Your task to perform on an android device: find which apps use the phone's location Image 0: 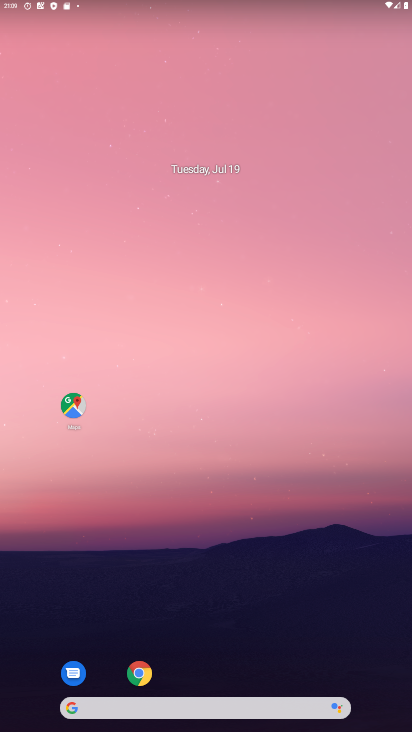
Step 0: drag from (222, 657) to (278, 209)
Your task to perform on an android device: find which apps use the phone's location Image 1: 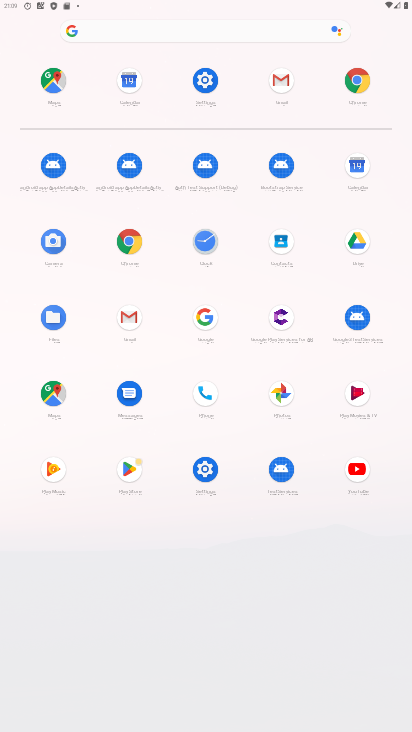
Step 1: click (210, 478)
Your task to perform on an android device: find which apps use the phone's location Image 2: 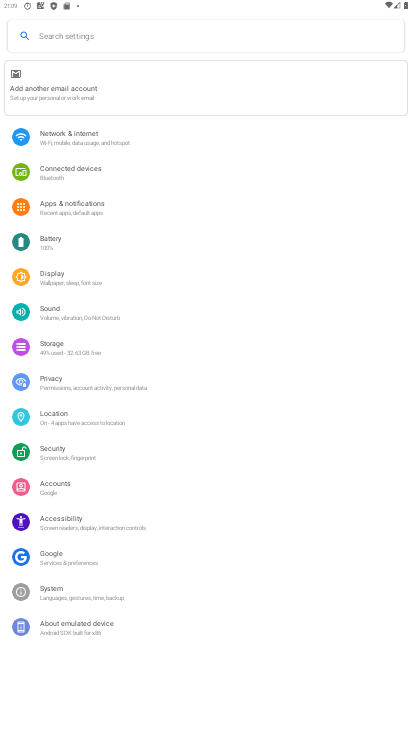
Step 2: click (81, 419)
Your task to perform on an android device: find which apps use the phone's location Image 3: 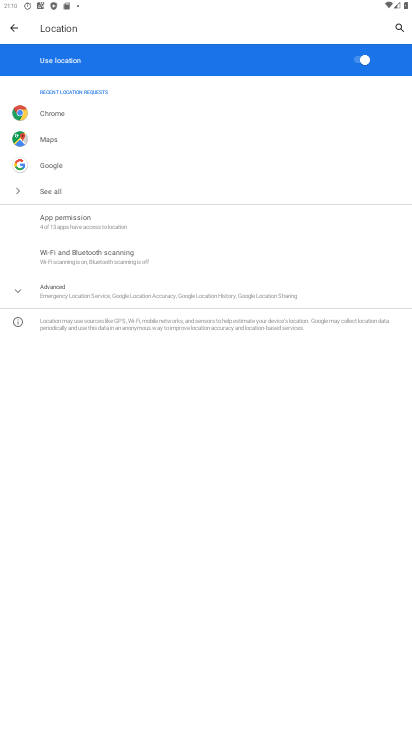
Step 3: click (95, 220)
Your task to perform on an android device: find which apps use the phone's location Image 4: 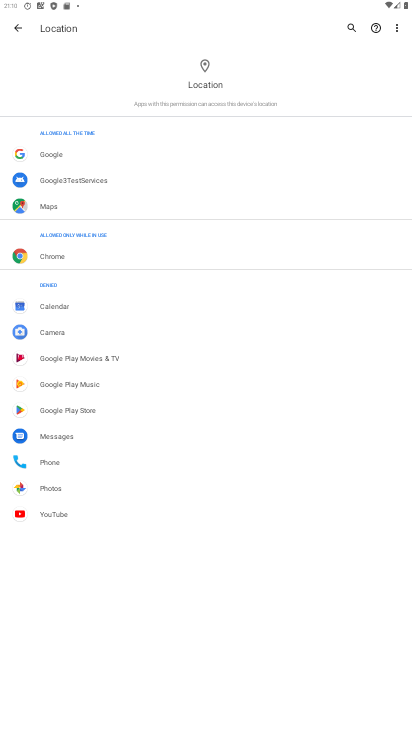
Step 4: task complete